Your task to perform on an android device: What's on my calendar today? Image 0: 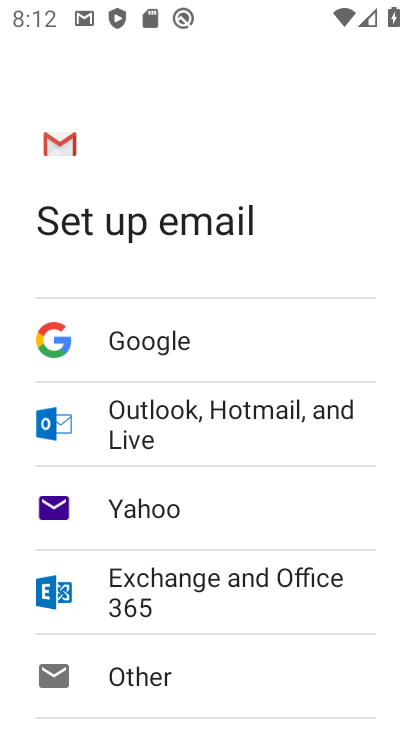
Step 0: press back button
Your task to perform on an android device: What's on my calendar today? Image 1: 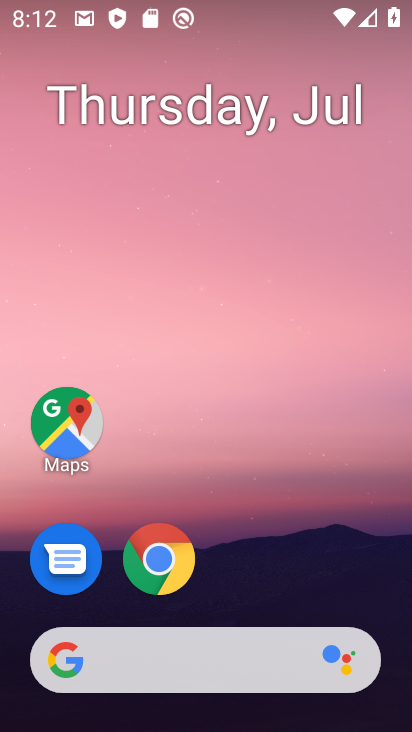
Step 1: click (212, 646)
Your task to perform on an android device: What's on my calendar today? Image 2: 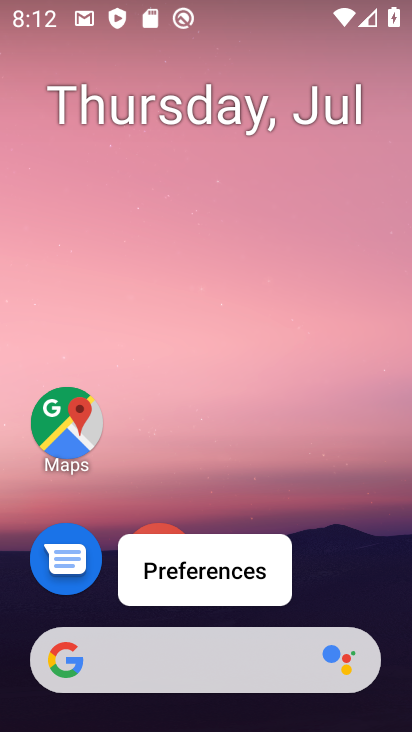
Step 2: click (200, 654)
Your task to perform on an android device: What's on my calendar today? Image 3: 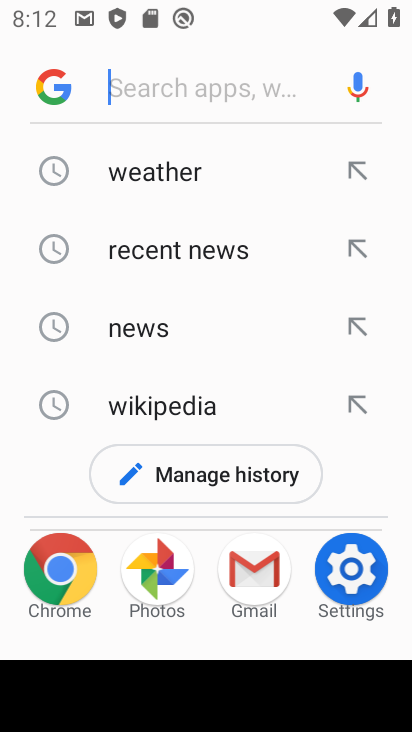
Step 3: press back button
Your task to perform on an android device: What's on my calendar today? Image 4: 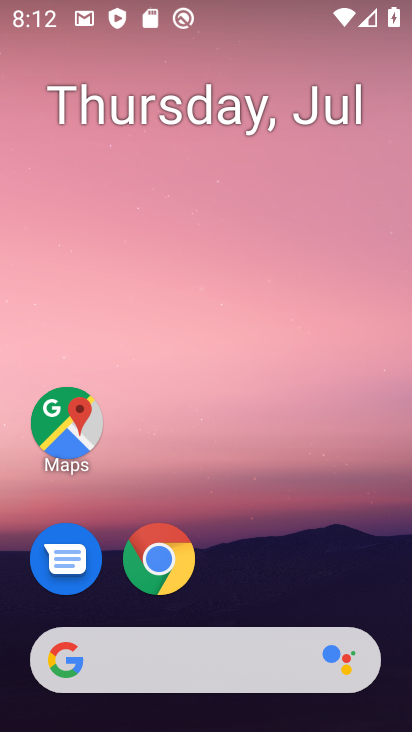
Step 4: drag from (279, 555) to (364, 7)
Your task to perform on an android device: What's on my calendar today? Image 5: 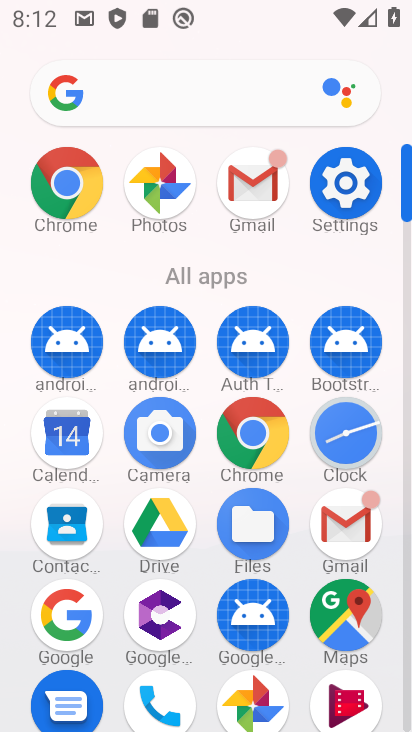
Step 5: click (75, 431)
Your task to perform on an android device: What's on my calendar today? Image 6: 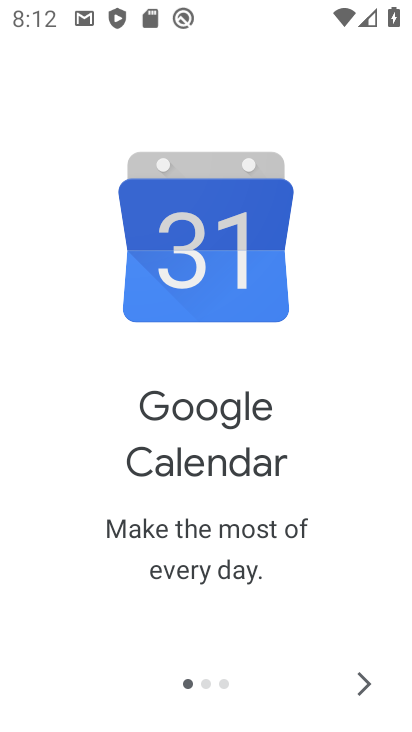
Step 6: click (365, 673)
Your task to perform on an android device: What's on my calendar today? Image 7: 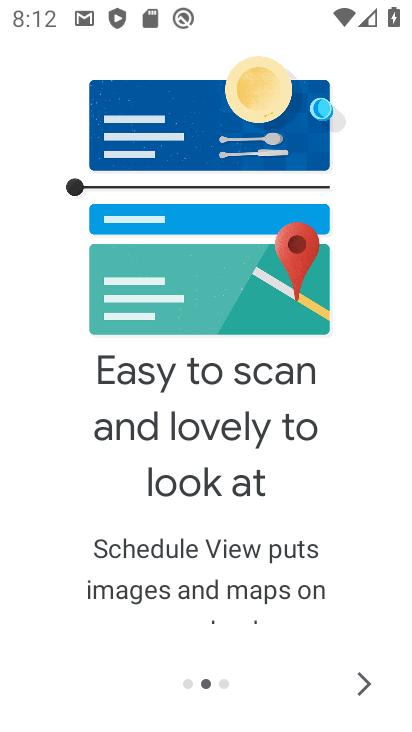
Step 7: click (357, 662)
Your task to perform on an android device: What's on my calendar today? Image 8: 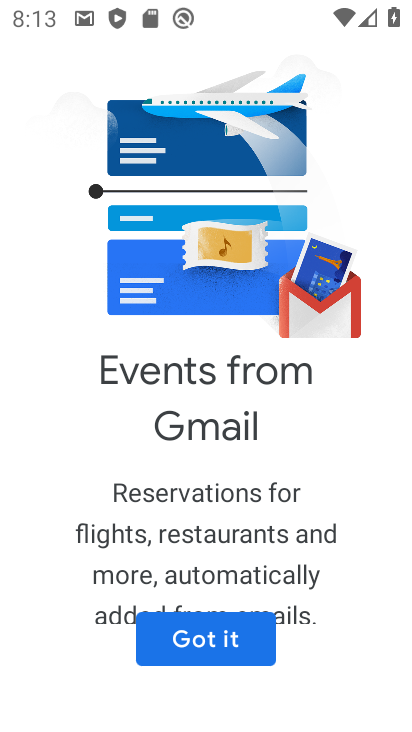
Step 8: click (220, 647)
Your task to perform on an android device: What's on my calendar today? Image 9: 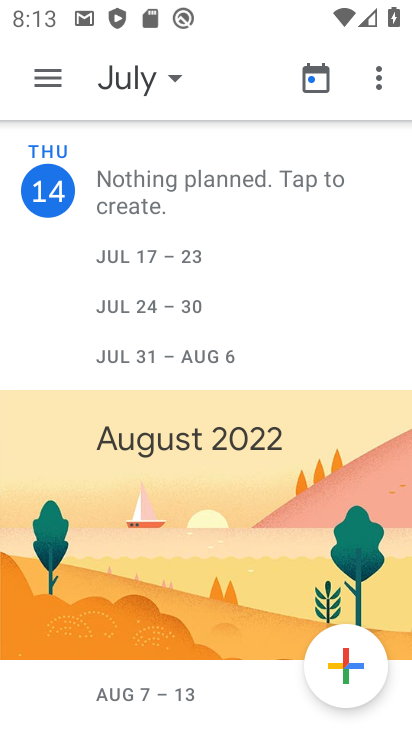
Step 9: task complete